Your task to perform on an android device: allow notifications from all sites in the chrome app Image 0: 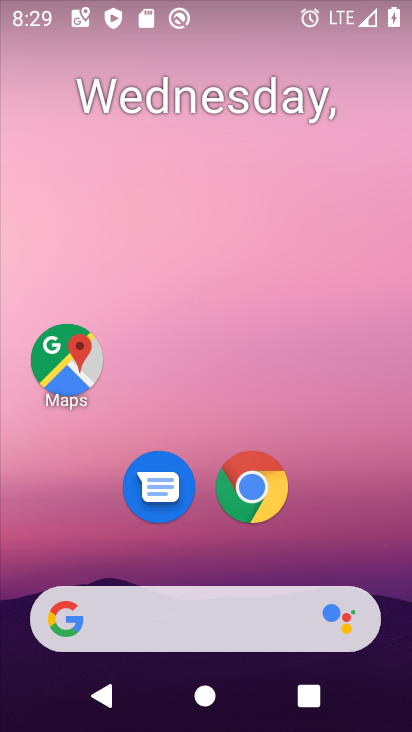
Step 0: click (245, 495)
Your task to perform on an android device: allow notifications from all sites in the chrome app Image 1: 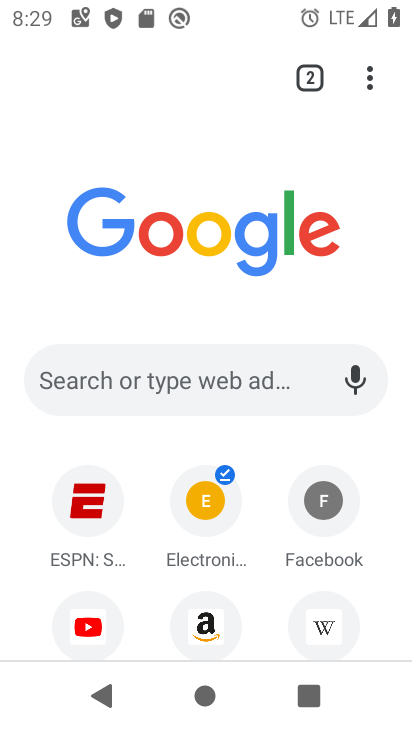
Step 1: click (374, 77)
Your task to perform on an android device: allow notifications from all sites in the chrome app Image 2: 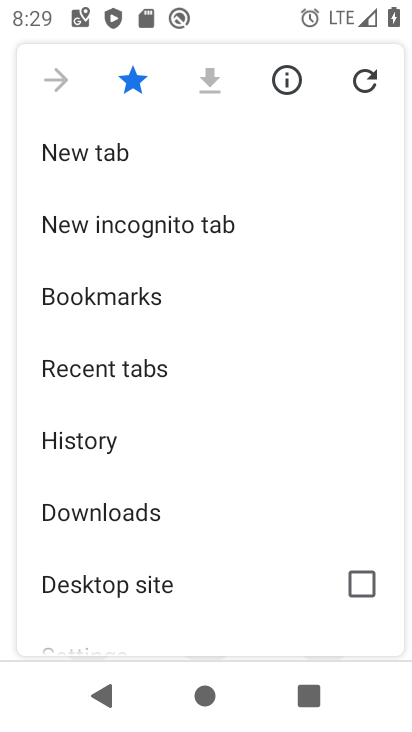
Step 2: drag from (202, 508) to (183, 11)
Your task to perform on an android device: allow notifications from all sites in the chrome app Image 3: 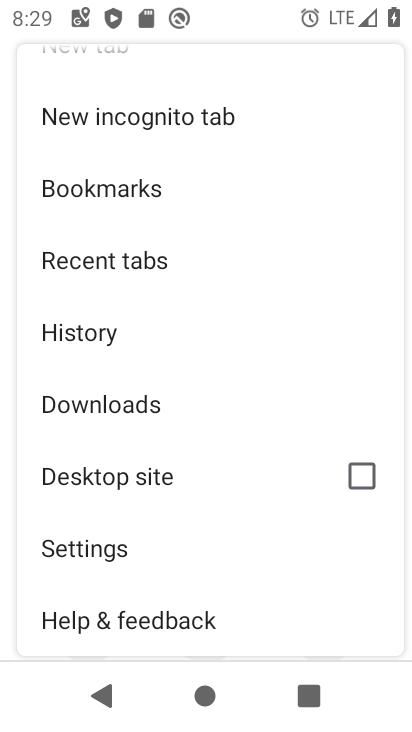
Step 3: click (79, 554)
Your task to perform on an android device: allow notifications from all sites in the chrome app Image 4: 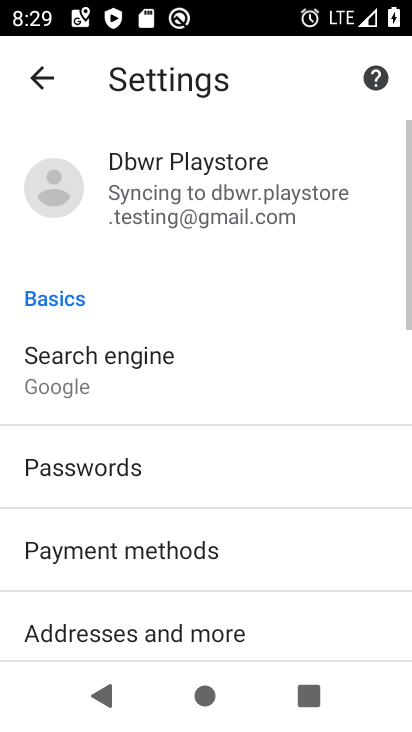
Step 4: drag from (183, 569) to (172, 181)
Your task to perform on an android device: allow notifications from all sites in the chrome app Image 5: 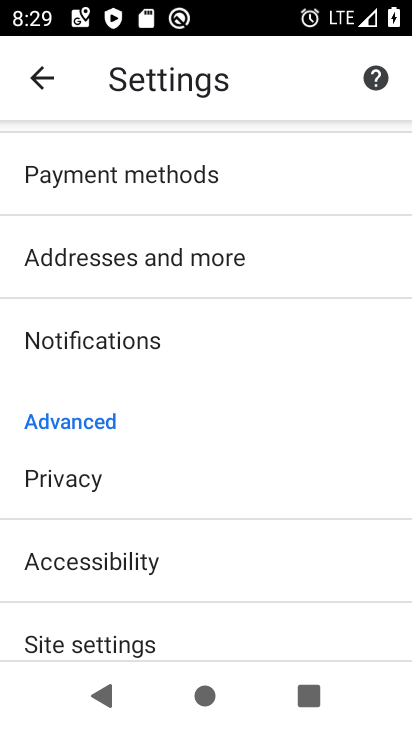
Step 5: drag from (132, 523) to (140, 217)
Your task to perform on an android device: allow notifications from all sites in the chrome app Image 6: 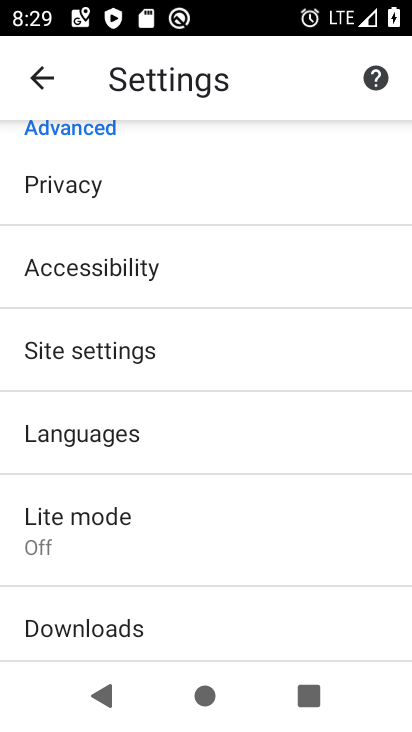
Step 6: click (100, 350)
Your task to perform on an android device: allow notifications from all sites in the chrome app Image 7: 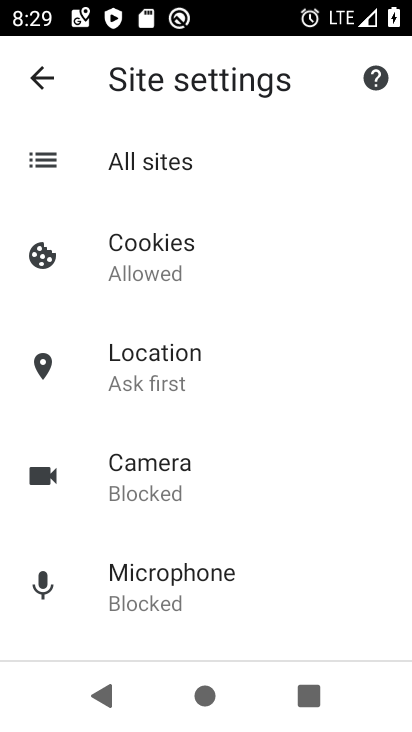
Step 7: drag from (229, 453) to (222, 225)
Your task to perform on an android device: allow notifications from all sites in the chrome app Image 8: 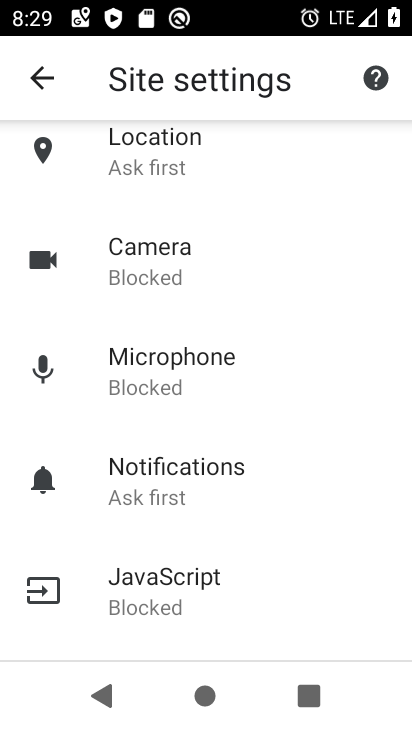
Step 8: click (147, 478)
Your task to perform on an android device: allow notifications from all sites in the chrome app Image 9: 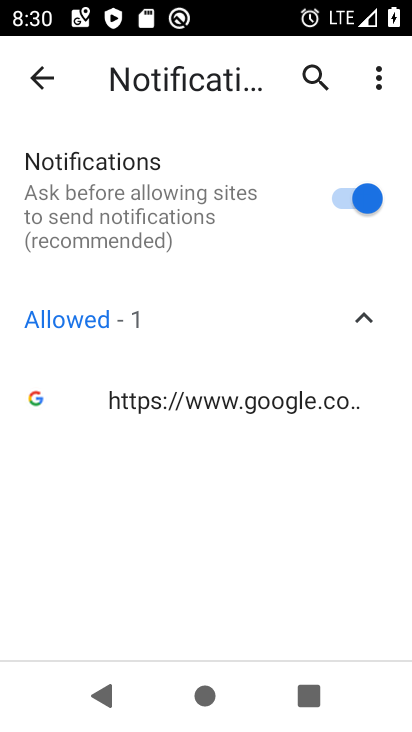
Step 9: task complete